Your task to perform on an android device: Open calendar and show me the first week of next month Image 0: 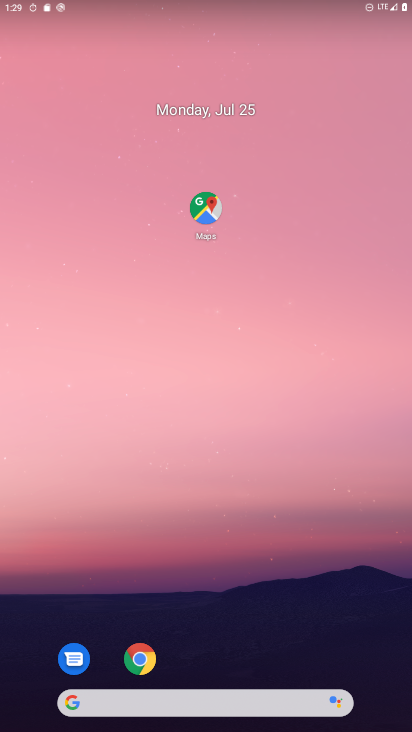
Step 0: drag from (47, 674) to (308, 11)
Your task to perform on an android device: Open calendar and show me the first week of next month Image 1: 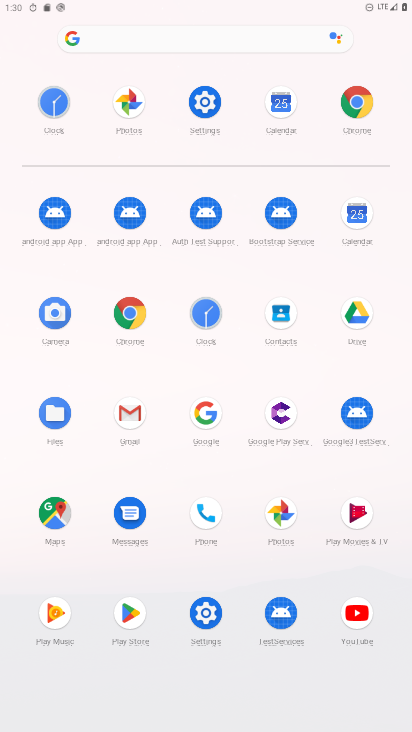
Step 1: click (205, 612)
Your task to perform on an android device: Open calendar and show me the first week of next month Image 2: 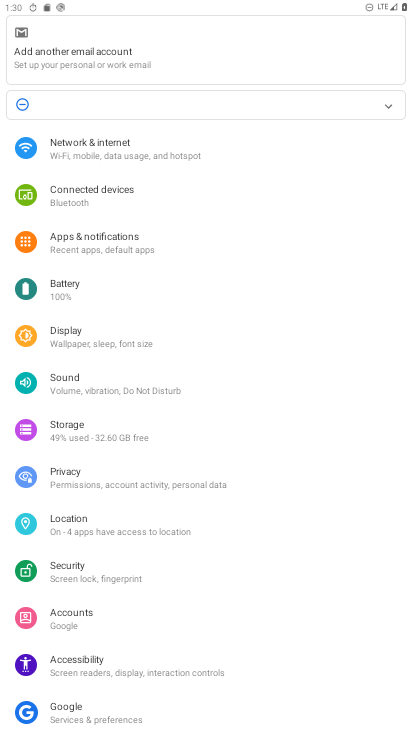
Step 2: press home button
Your task to perform on an android device: Open calendar and show me the first week of next month Image 3: 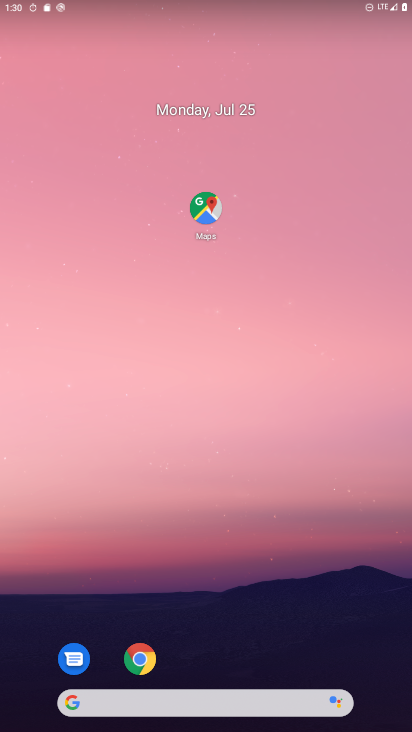
Step 3: drag from (32, 643) to (210, 103)
Your task to perform on an android device: Open calendar and show me the first week of next month Image 4: 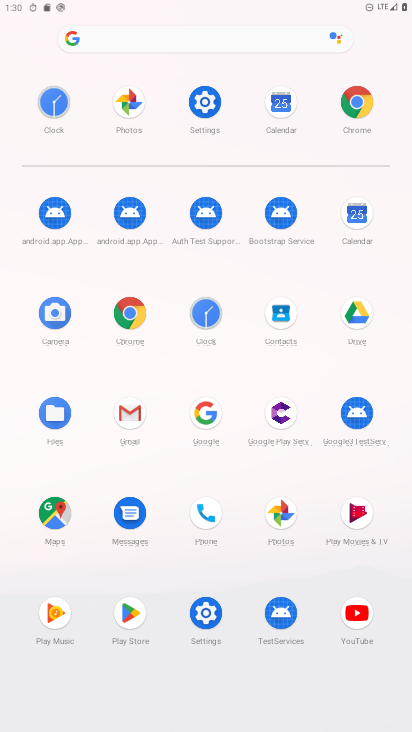
Step 4: click (340, 208)
Your task to perform on an android device: Open calendar and show me the first week of next month Image 5: 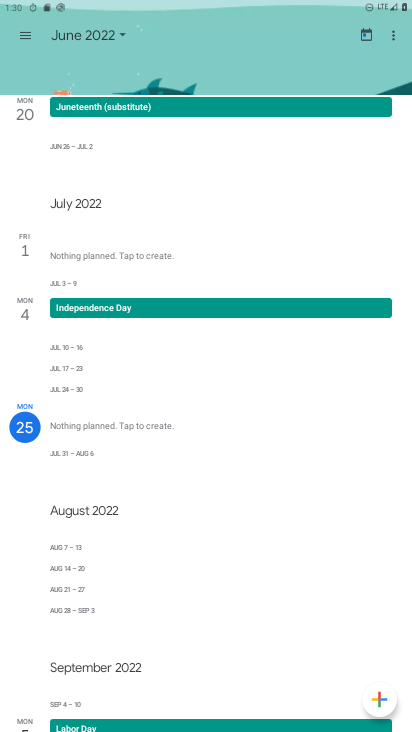
Step 5: click (117, 40)
Your task to perform on an android device: Open calendar and show me the first week of next month Image 6: 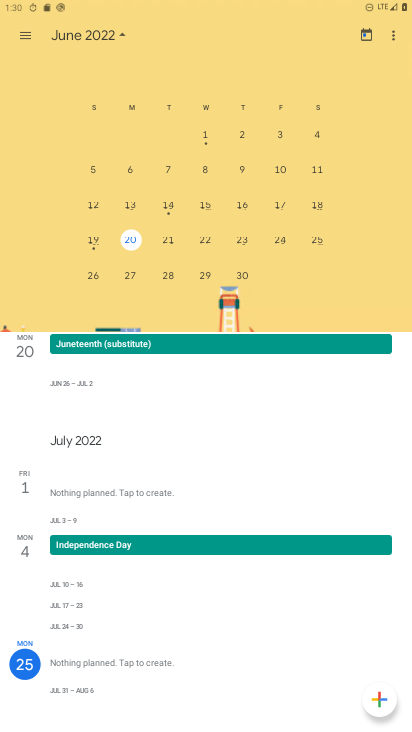
Step 6: task complete